Your task to perform on an android device: change notifications settings Image 0: 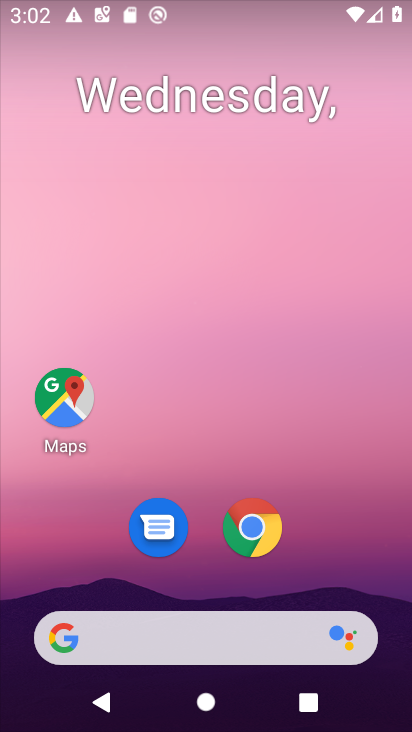
Step 0: drag from (301, 550) to (301, 72)
Your task to perform on an android device: change notifications settings Image 1: 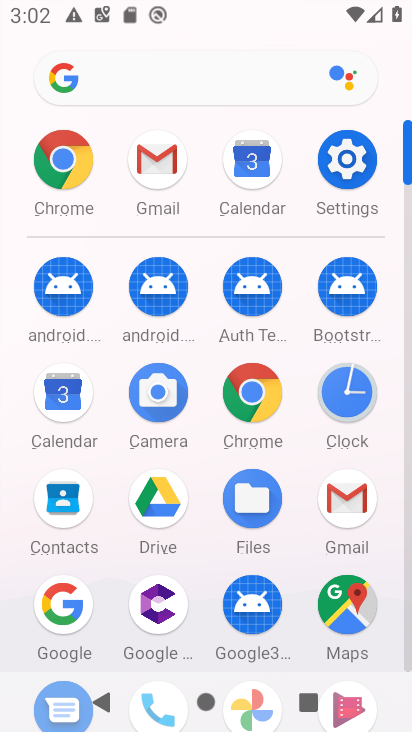
Step 1: click (347, 159)
Your task to perform on an android device: change notifications settings Image 2: 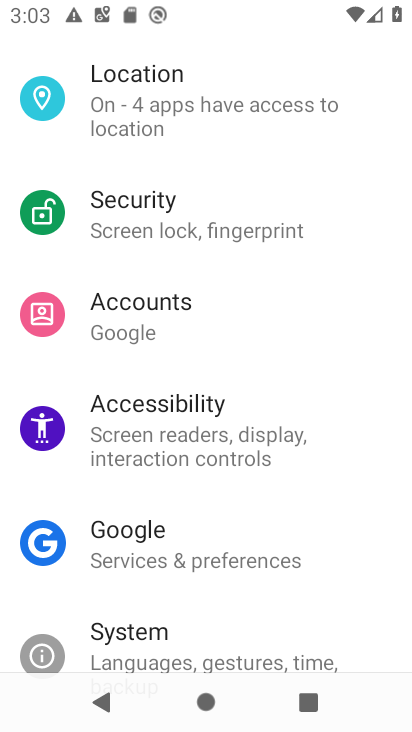
Step 2: drag from (336, 165) to (293, 586)
Your task to perform on an android device: change notifications settings Image 3: 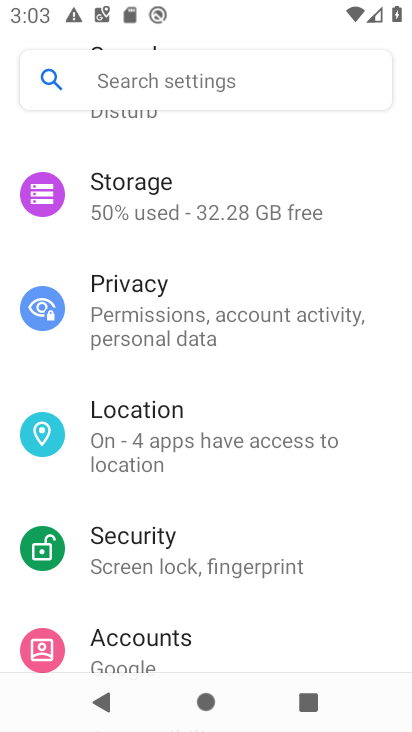
Step 3: drag from (334, 159) to (294, 569)
Your task to perform on an android device: change notifications settings Image 4: 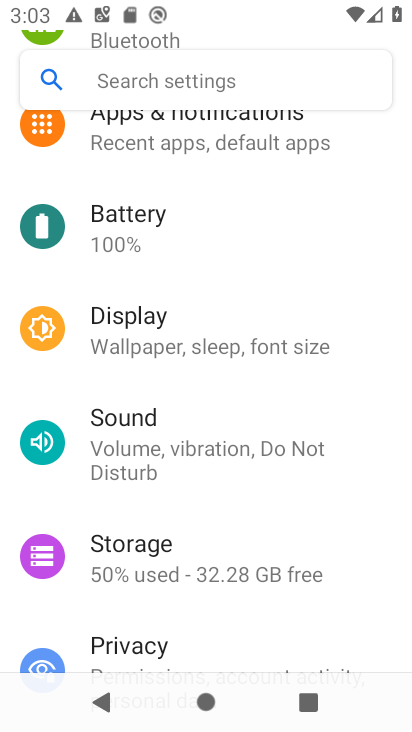
Step 4: drag from (329, 207) to (280, 575)
Your task to perform on an android device: change notifications settings Image 5: 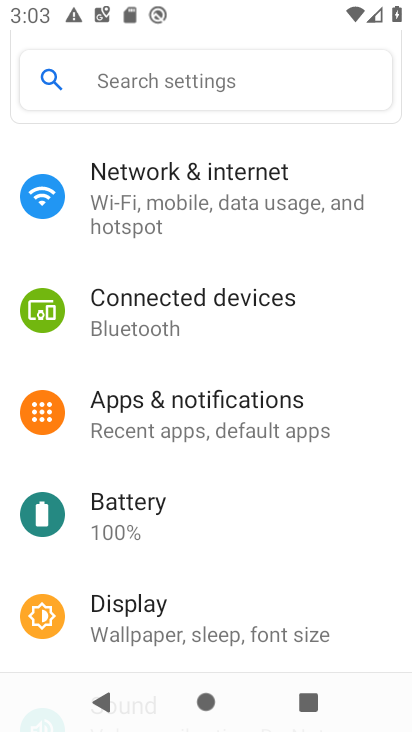
Step 5: click (222, 398)
Your task to perform on an android device: change notifications settings Image 6: 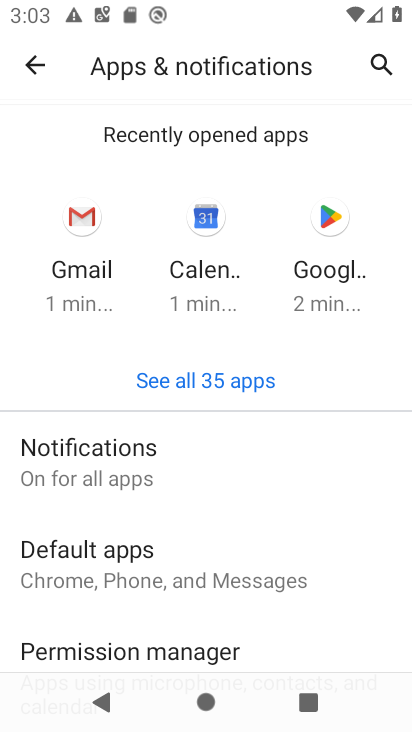
Step 6: click (136, 445)
Your task to perform on an android device: change notifications settings Image 7: 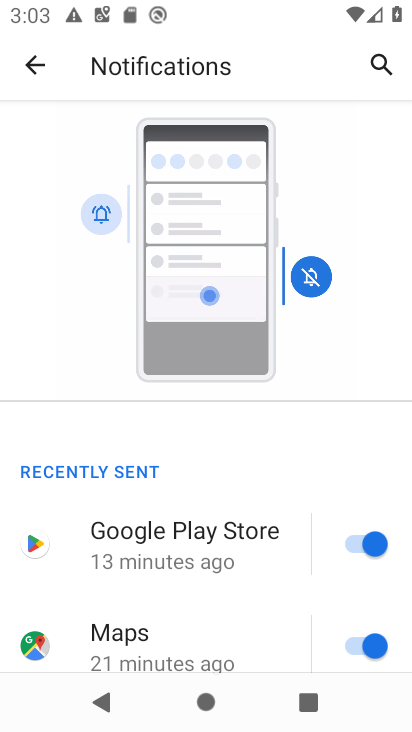
Step 7: task complete